Your task to perform on an android device: set default search engine in the chrome app Image 0: 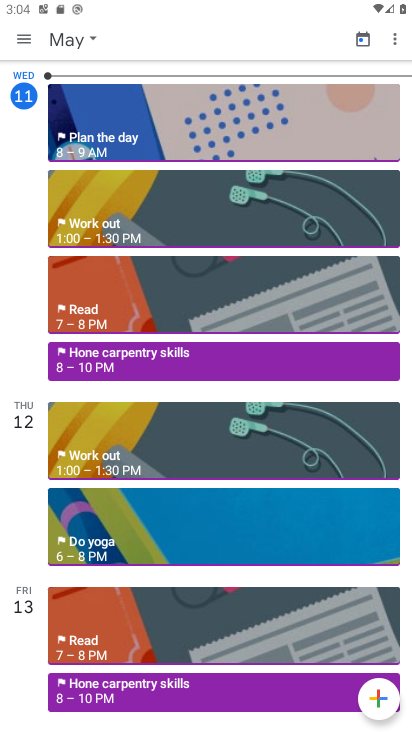
Step 0: press home button
Your task to perform on an android device: set default search engine in the chrome app Image 1: 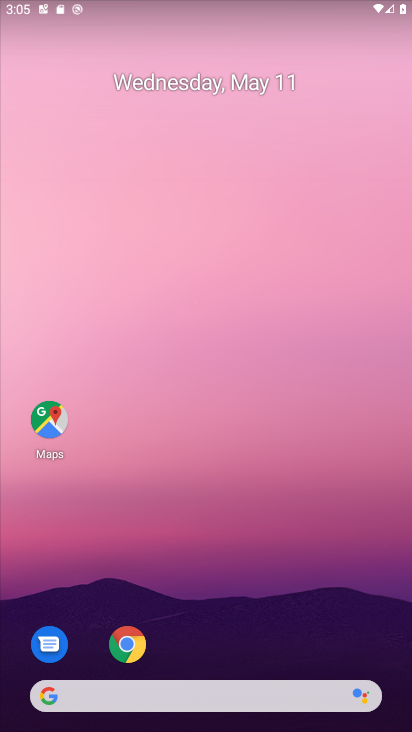
Step 1: click (137, 641)
Your task to perform on an android device: set default search engine in the chrome app Image 2: 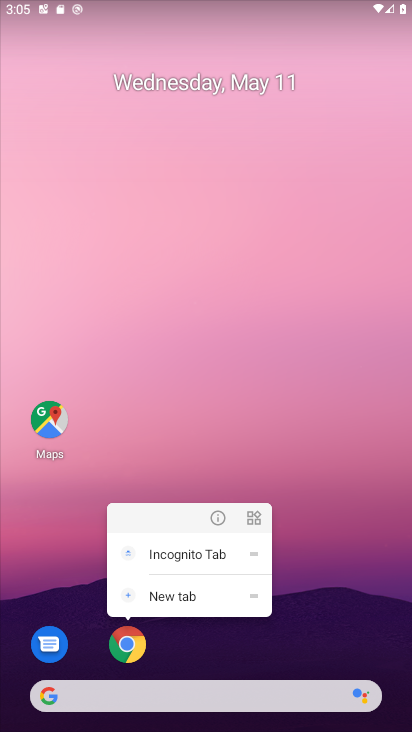
Step 2: click (134, 638)
Your task to perform on an android device: set default search engine in the chrome app Image 3: 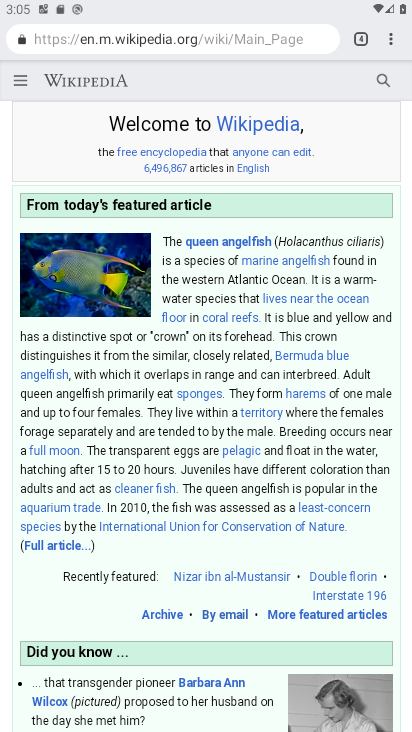
Step 3: click (392, 39)
Your task to perform on an android device: set default search engine in the chrome app Image 4: 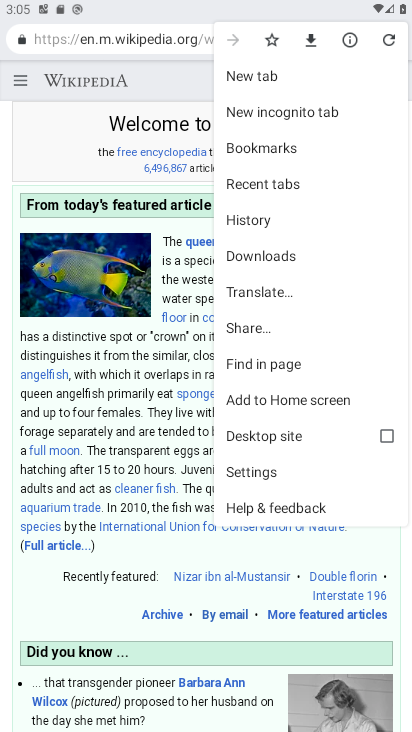
Step 4: click (251, 464)
Your task to perform on an android device: set default search engine in the chrome app Image 5: 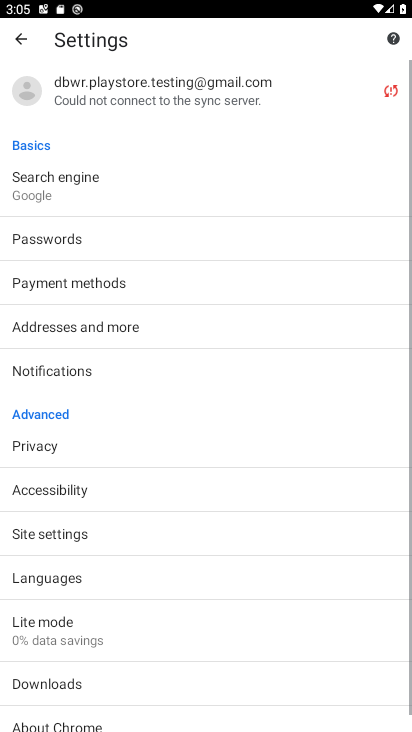
Step 5: click (51, 182)
Your task to perform on an android device: set default search engine in the chrome app Image 6: 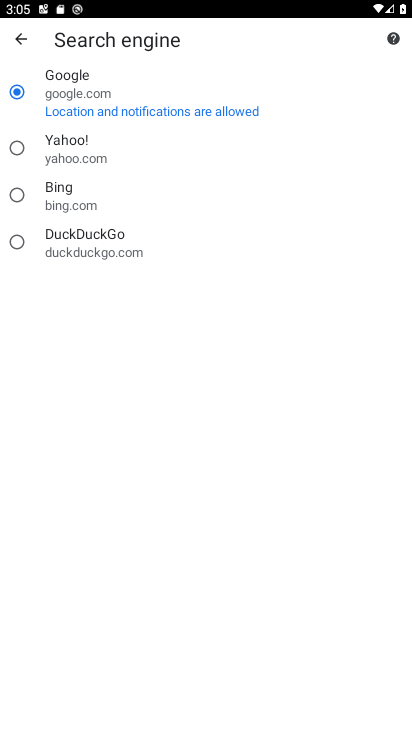
Step 6: click (10, 83)
Your task to perform on an android device: set default search engine in the chrome app Image 7: 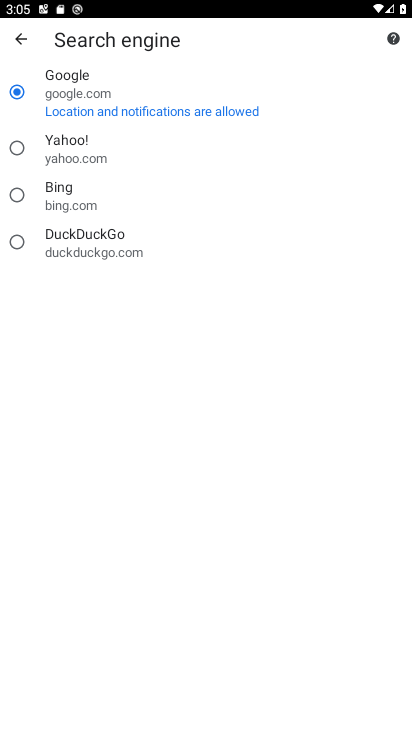
Step 7: task complete